Your task to perform on an android device: Open Amazon Image 0: 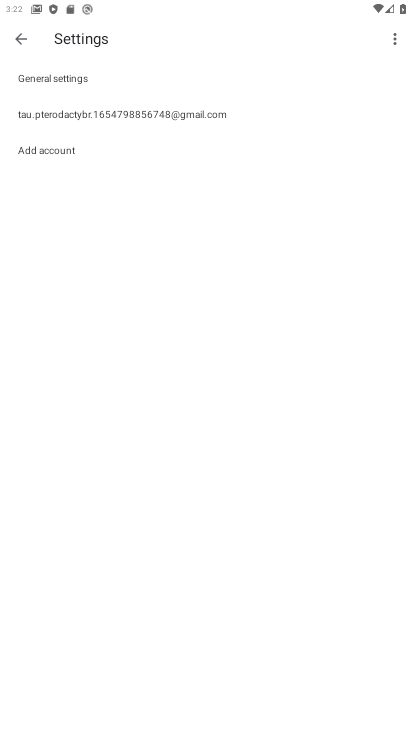
Step 0: press home button
Your task to perform on an android device: Open Amazon Image 1: 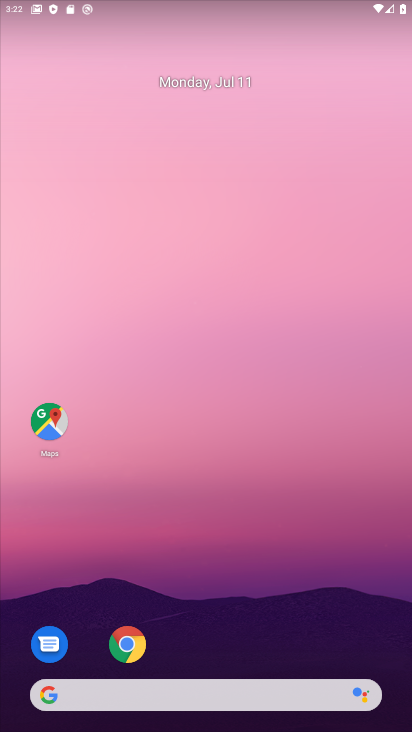
Step 1: click (129, 645)
Your task to perform on an android device: Open Amazon Image 2: 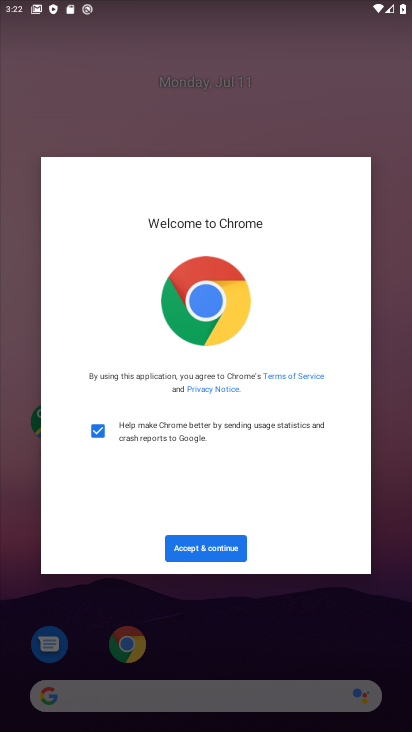
Step 2: click (197, 545)
Your task to perform on an android device: Open Amazon Image 3: 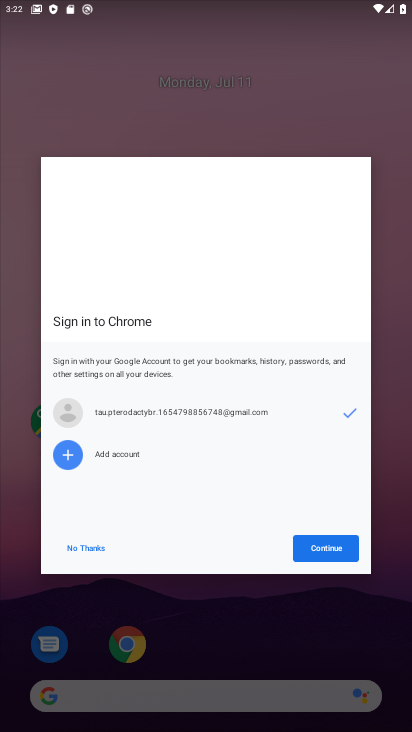
Step 3: click (300, 546)
Your task to perform on an android device: Open Amazon Image 4: 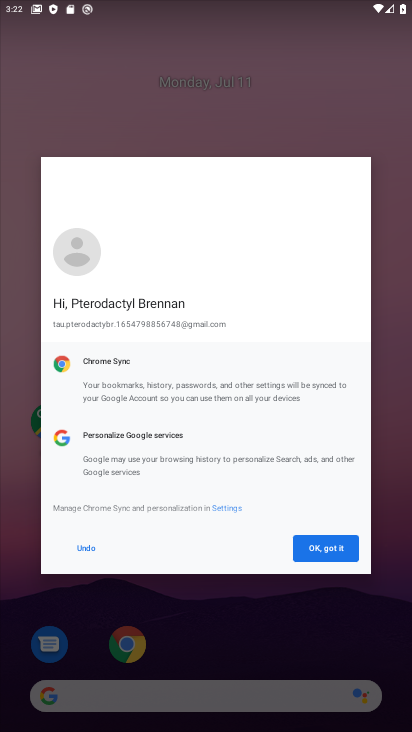
Step 4: click (304, 555)
Your task to perform on an android device: Open Amazon Image 5: 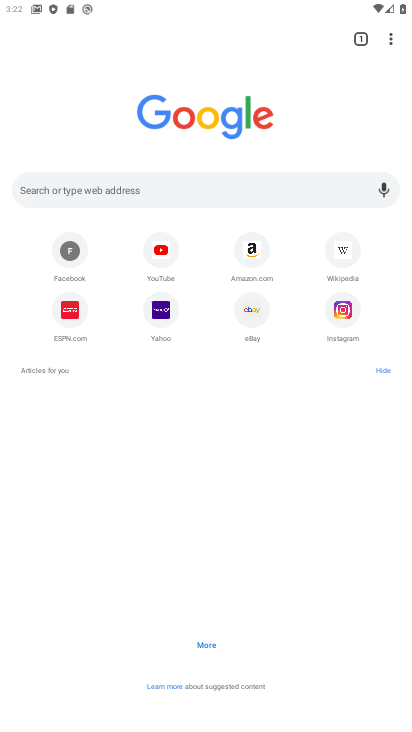
Step 5: click (257, 251)
Your task to perform on an android device: Open Amazon Image 6: 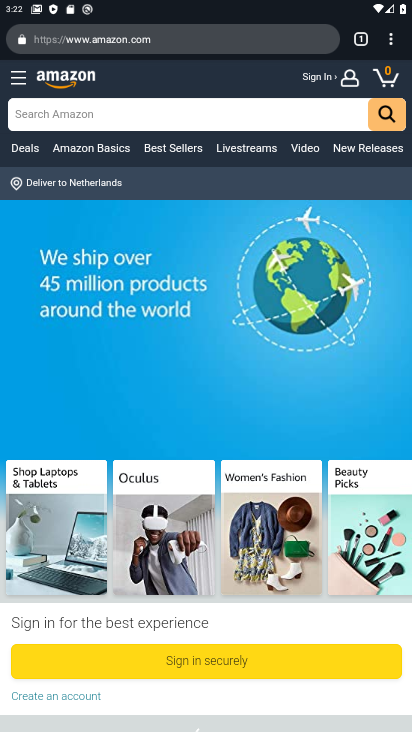
Step 6: task complete